Your task to perform on an android device: turn off notifications settings in the gmail app Image 0: 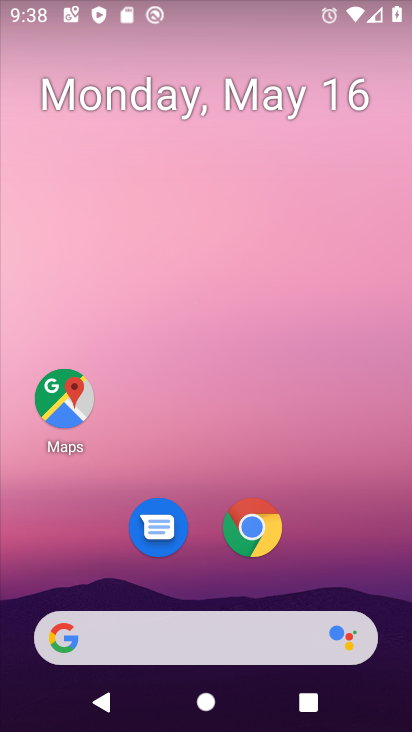
Step 0: drag from (354, 585) to (335, 10)
Your task to perform on an android device: turn off notifications settings in the gmail app Image 1: 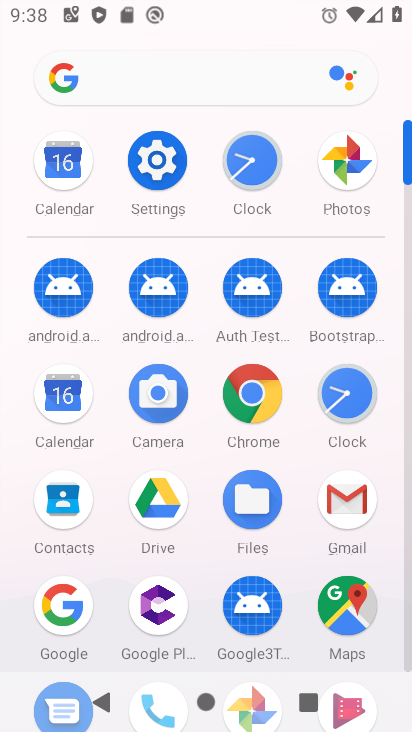
Step 1: click (348, 501)
Your task to perform on an android device: turn off notifications settings in the gmail app Image 2: 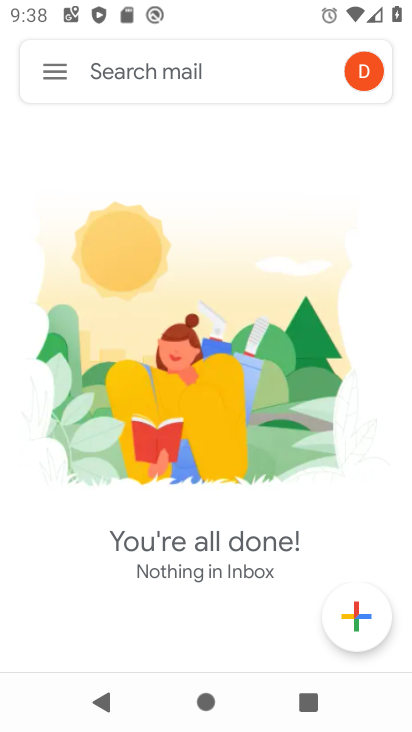
Step 2: click (52, 66)
Your task to perform on an android device: turn off notifications settings in the gmail app Image 3: 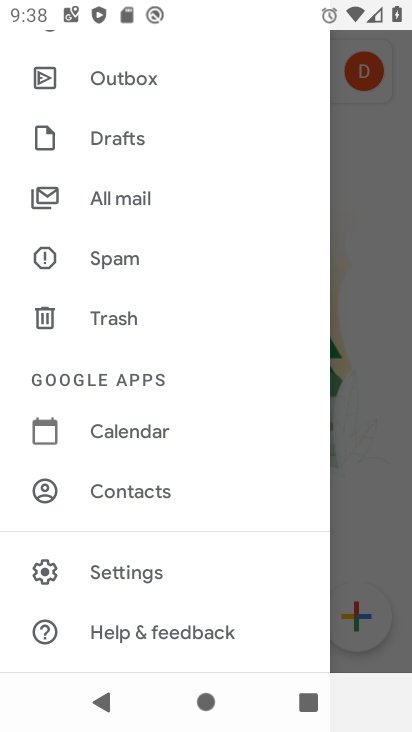
Step 3: click (124, 573)
Your task to perform on an android device: turn off notifications settings in the gmail app Image 4: 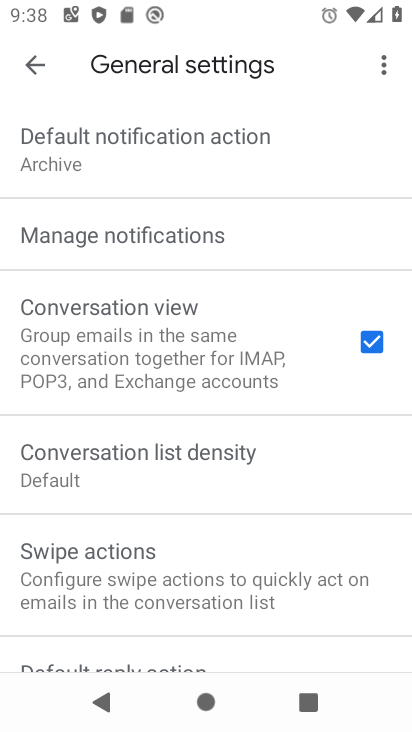
Step 4: click (86, 234)
Your task to perform on an android device: turn off notifications settings in the gmail app Image 5: 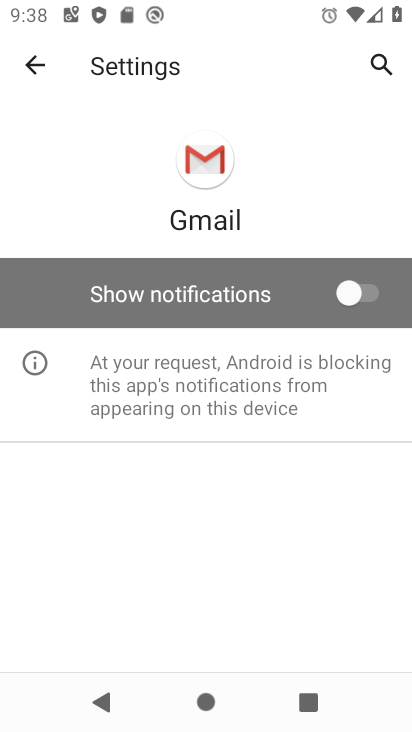
Step 5: task complete